Your task to perform on an android device: Open Reddit.com Image 0: 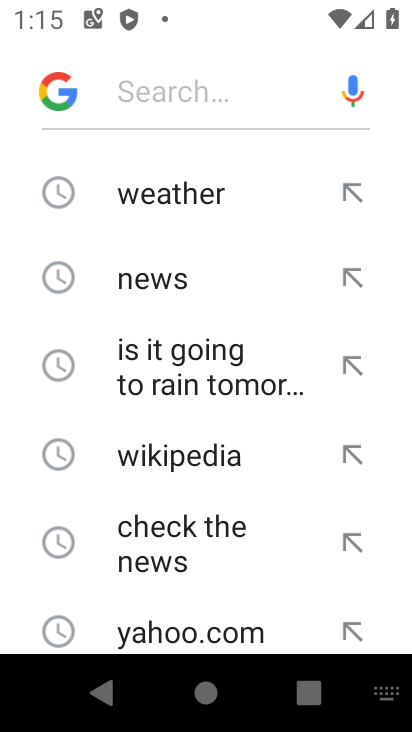
Step 0: press back button
Your task to perform on an android device: Open Reddit.com Image 1: 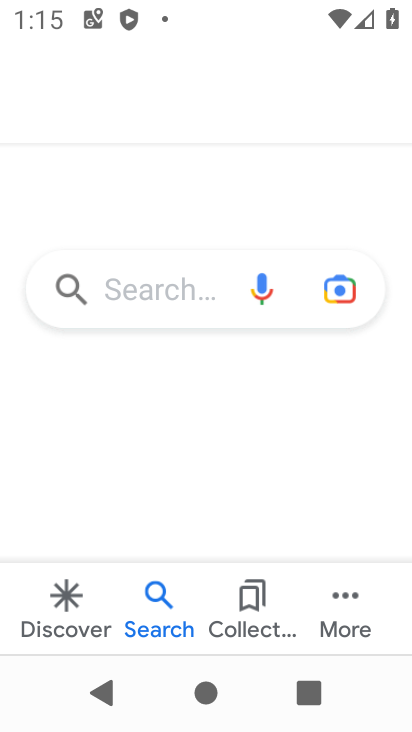
Step 1: press back button
Your task to perform on an android device: Open Reddit.com Image 2: 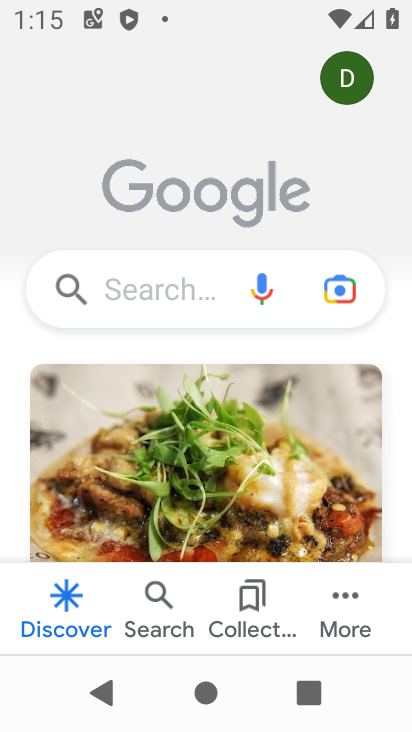
Step 2: press back button
Your task to perform on an android device: Open Reddit.com Image 3: 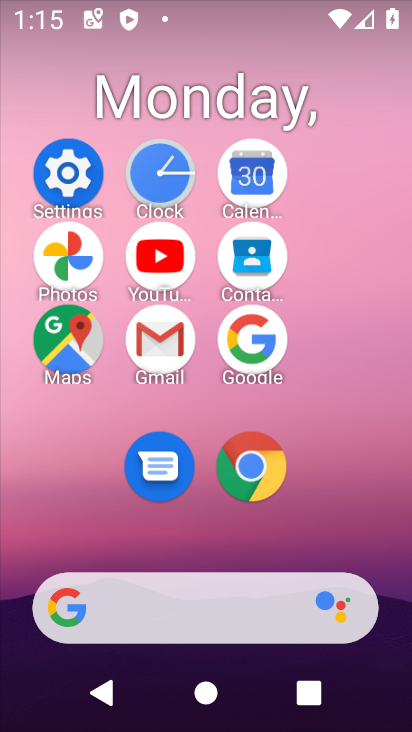
Step 3: click (277, 451)
Your task to perform on an android device: Open Reddit.com Image 4: 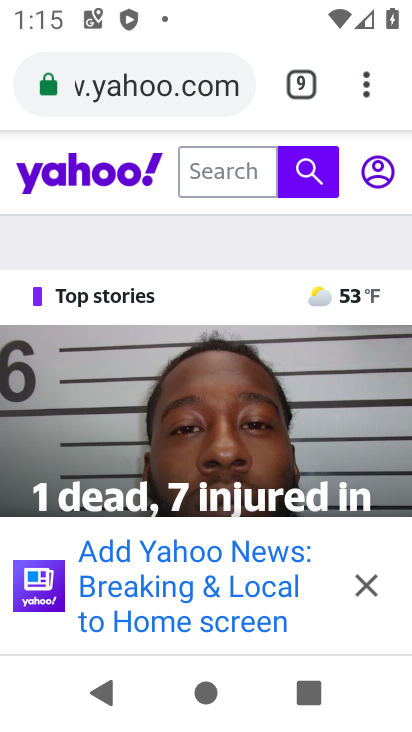
Step 4: click (306, 75)
Your task to perform on an android device: Open Reddit.com Image 5: 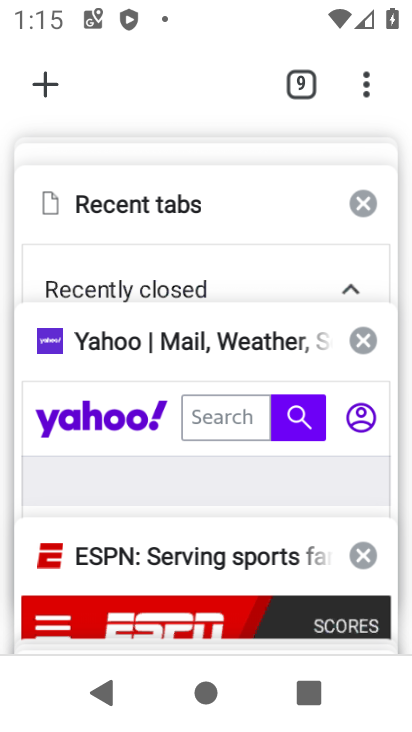
Step 5: drag from (129, 519) to (172, 160)
Your task to perform on an android device: Open Reddit.com Image 6: 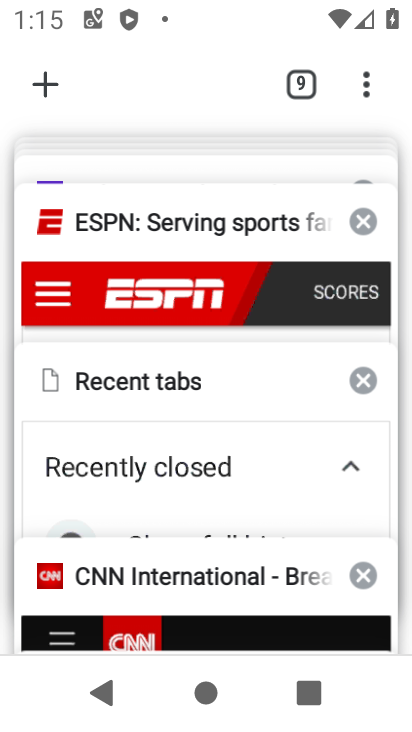
Step 6: drag from (146, 446) to (164, 137)
Your task to perform on an android device: Open Reddit.com Image 7: 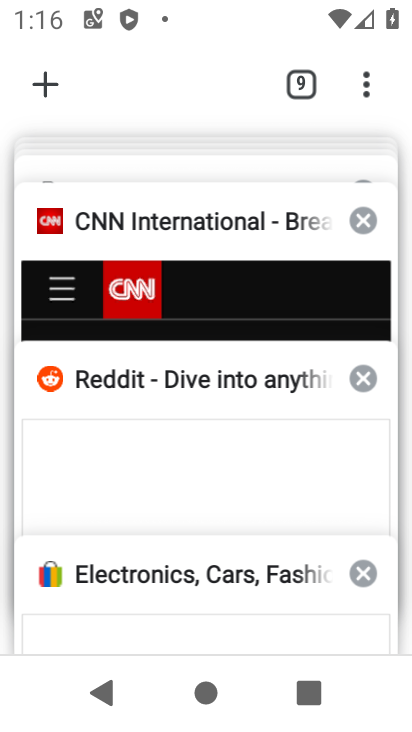
Step 7: drag from (189, 521) to (202, 122)
Your task to perform on an android device: Open Reddit.com Image 8: 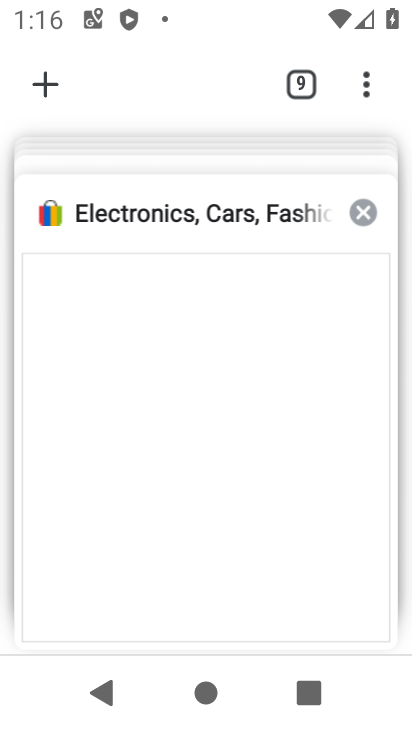
Step 8: drag from (215, 270) to (221, 560)
Your task to perform on an android device: Open Reddit.com Image 9: 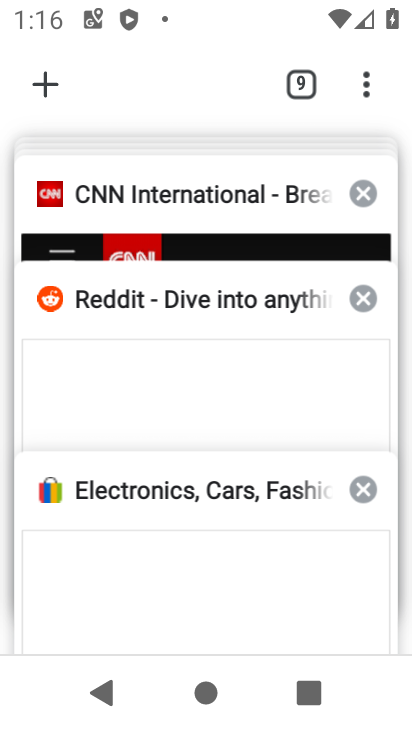
Step 9: click (191, 350)
Your task to perform on an android device: Open Reddit.com Image 10: 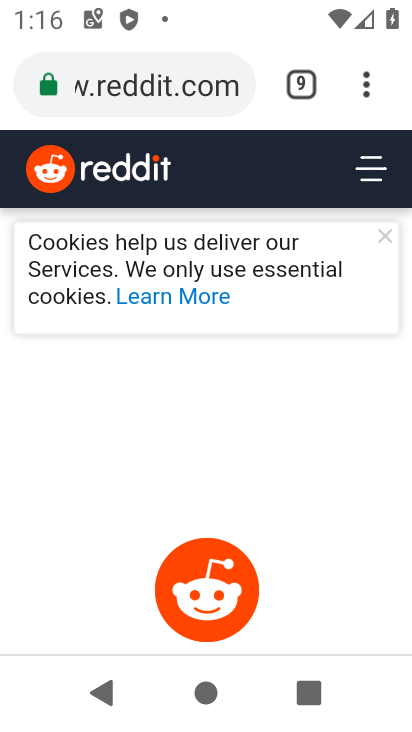
Step 10: task complete